Your task to perform on an android device: Look up the best gaming chair on Best Buy. Image 0: 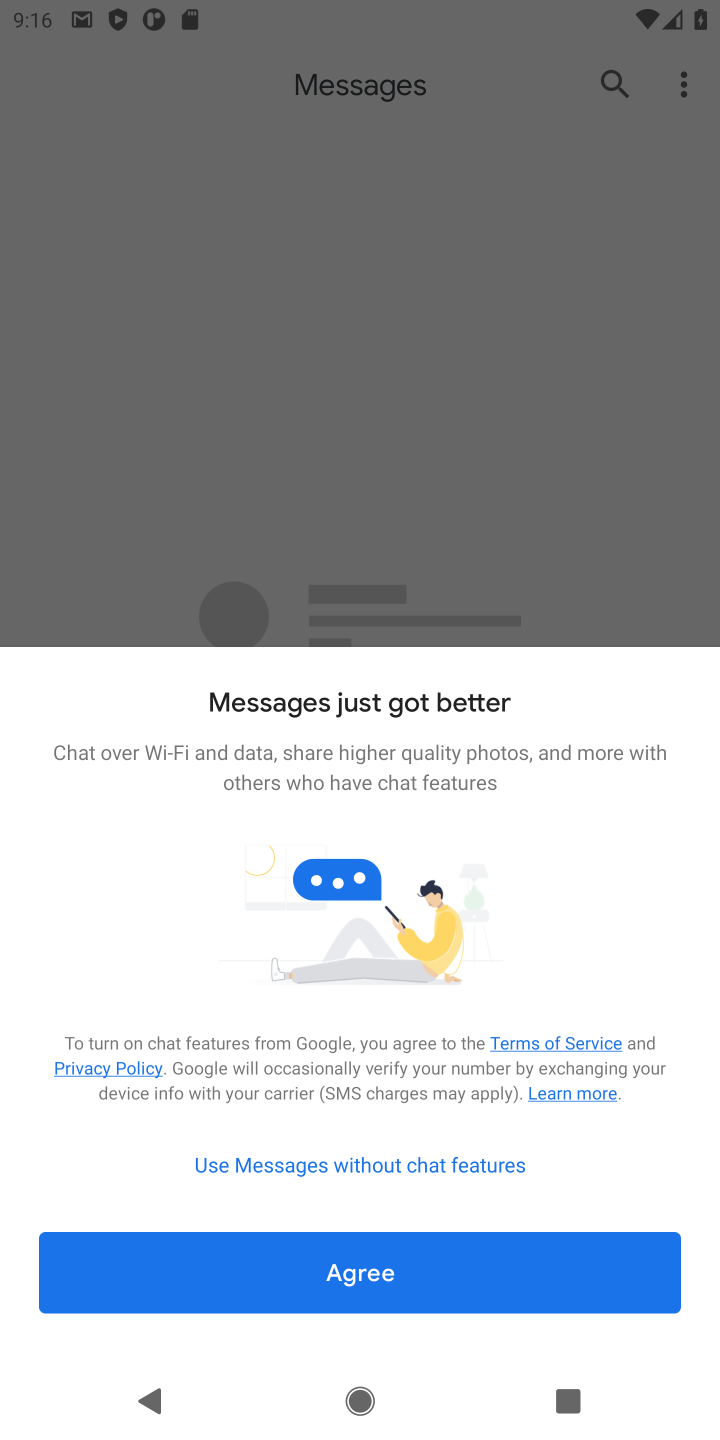
Step 0: press home button
Your task to perform on an android device: Look up the best gaming chair on Best Buy. Image 1: 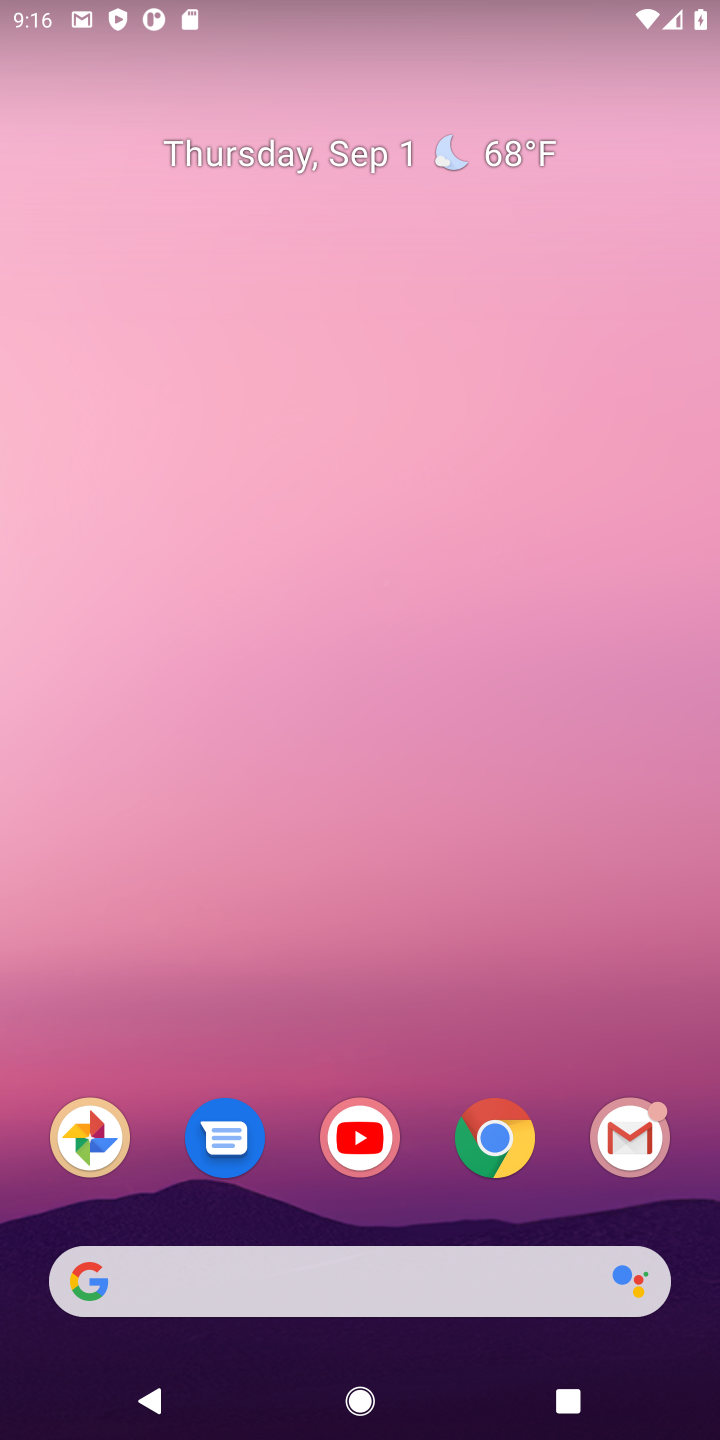
Step 1: click (495, 1146)
Your task to perform on an android device: Look up the best gaming chair on Best Buy. Image 2: 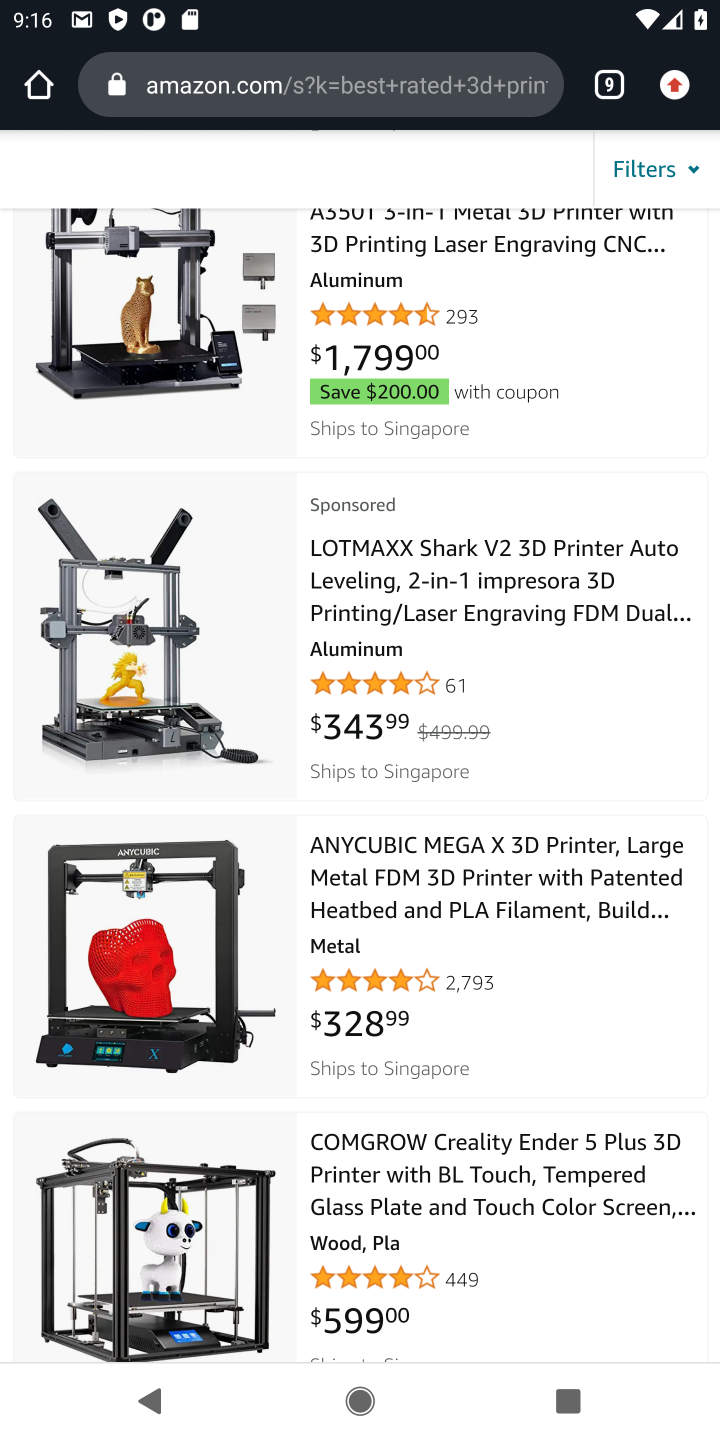
Step 2: click (613, 84)
Your task to perform on an android device: Look up the best gaming chair on Best Buy. Image 3: 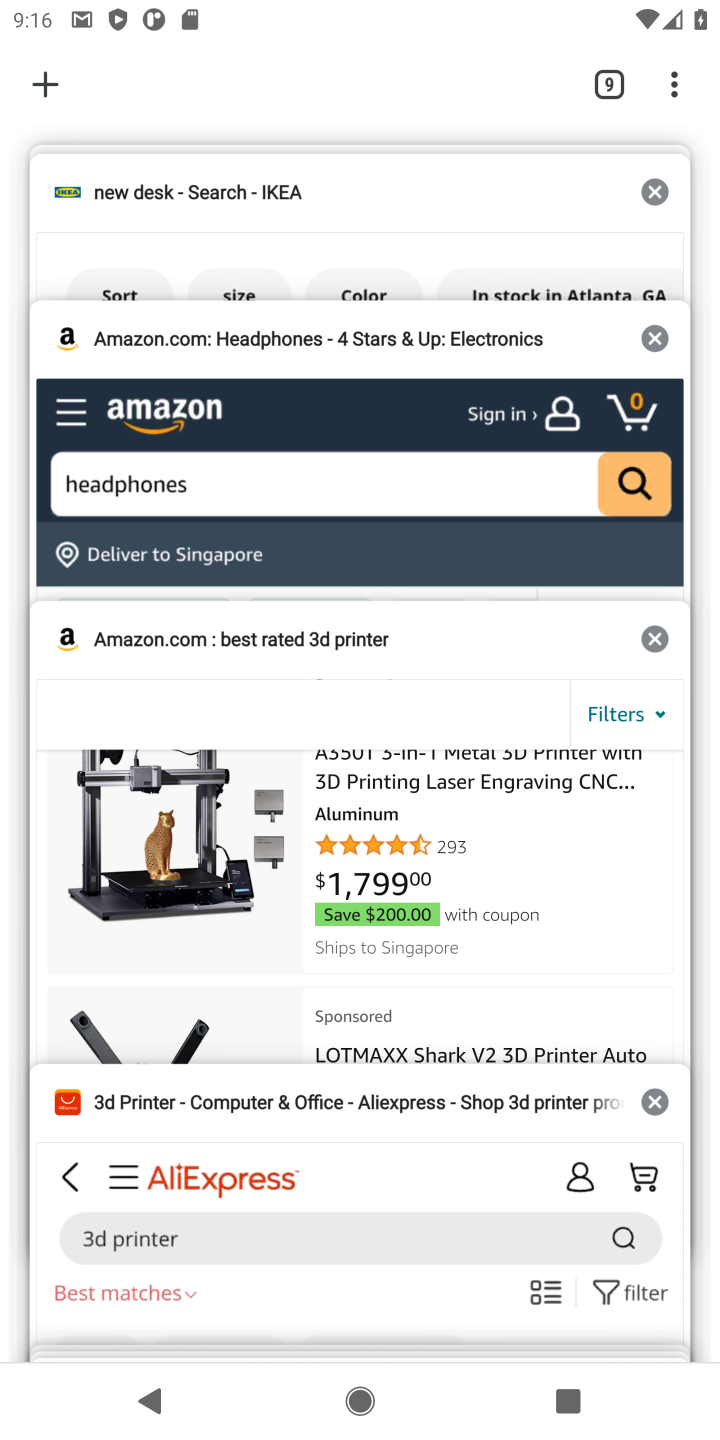
Step 3: drag from (223, 242) to (320, 715)
Your task to perform on an android device: Look up the best gaming chair on Best Buy. Image 4: 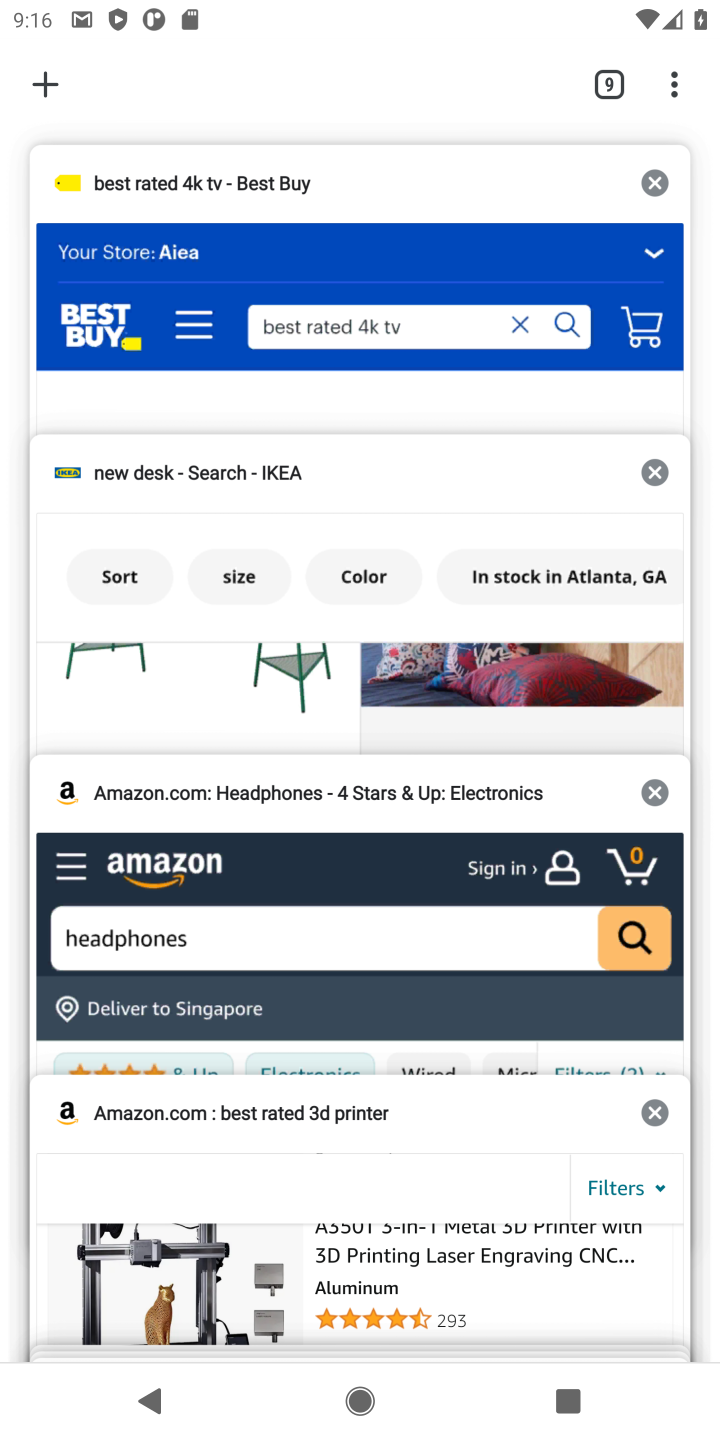
Step 4: click (344, 227)
Your task to perform on an android device: Look up the best gaming chair on Best Buy. Image 5: 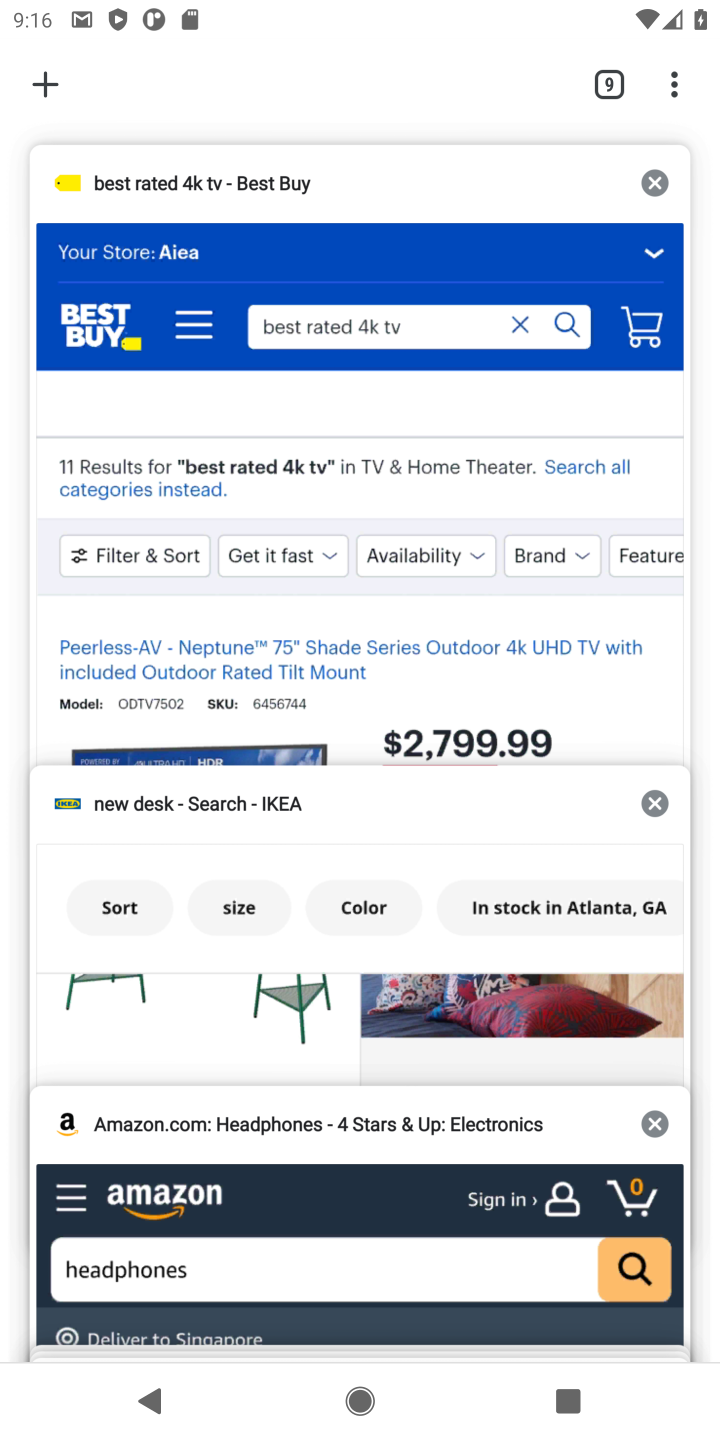
Step 5: click (344, 227)
Your task to perform on an android device: Look up the best gaming chair on Best Buy. Image 6: 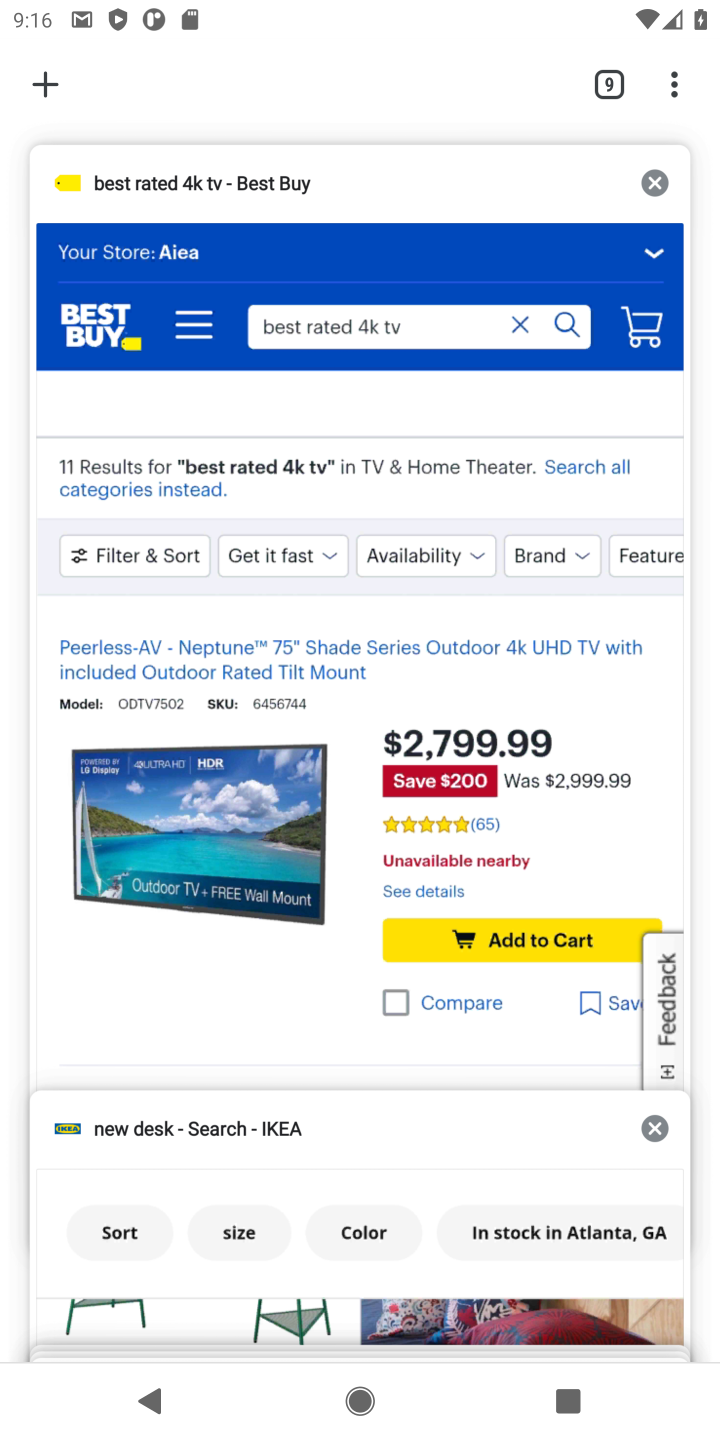
Step 6: click (441, 187)
Your task to perform on an android device: Look up the best gaming chair on Best Buy. Image 7: 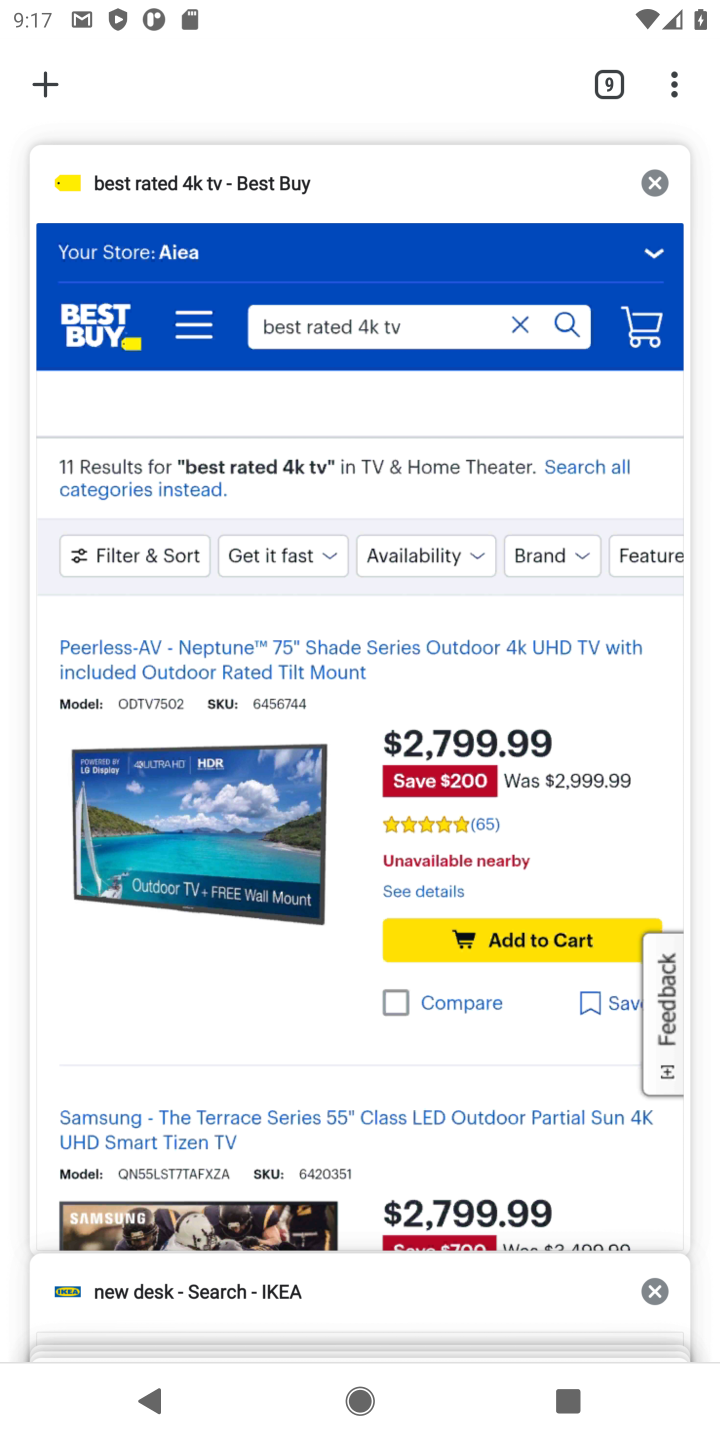
Step 7: click (288, 212)
Your task to perform on an android device: Look up the best gaming chair on Best Buy. Image 8: 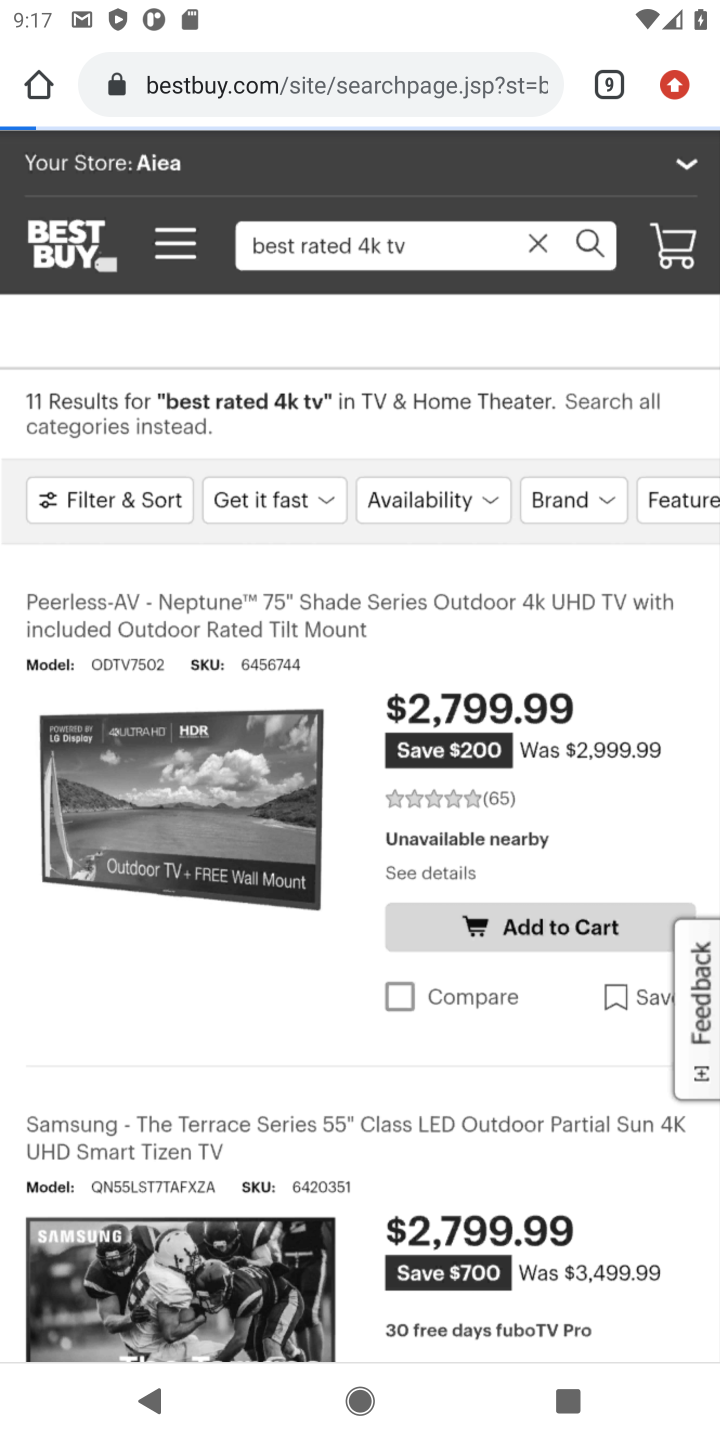
Step 8: click (475, 242)
Your task to perform on an android device: Look up the best gaming chair on Best Buy. Image 9: 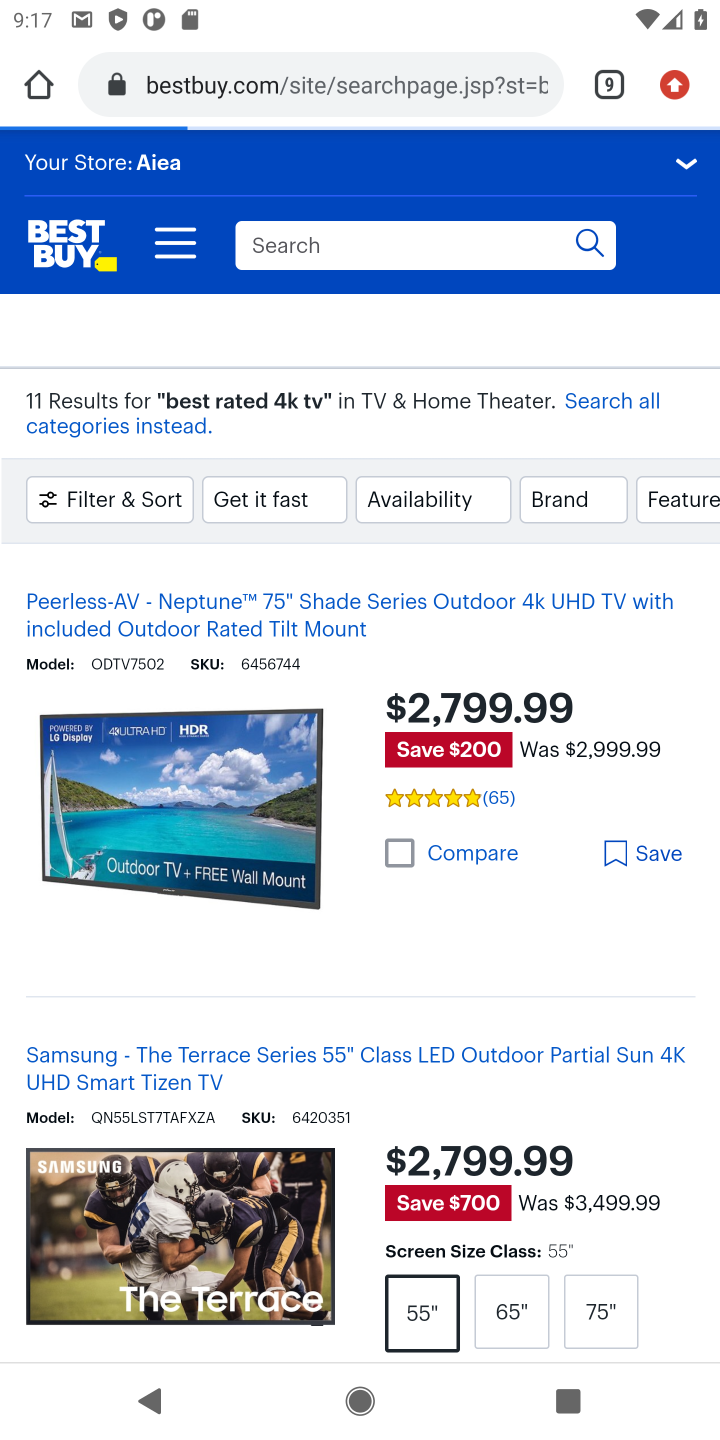
Step 9: click (523, 250)
Your task to perform on an android device: Look up the best gaming chair on Best Buy. Image 10: 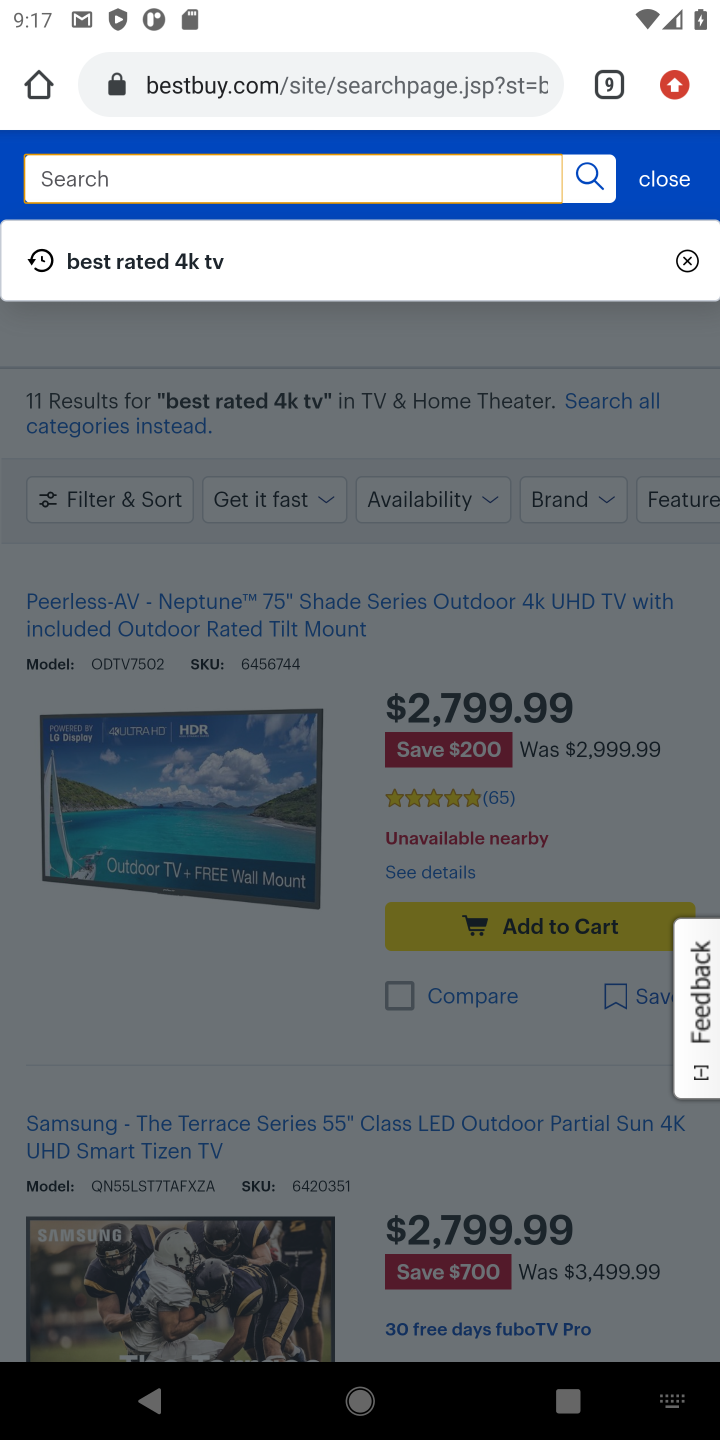
Step 10: type "best gaming chair"
Your task to perform on an android device: Look up the best gaming chair on Best Buy. Image 11: 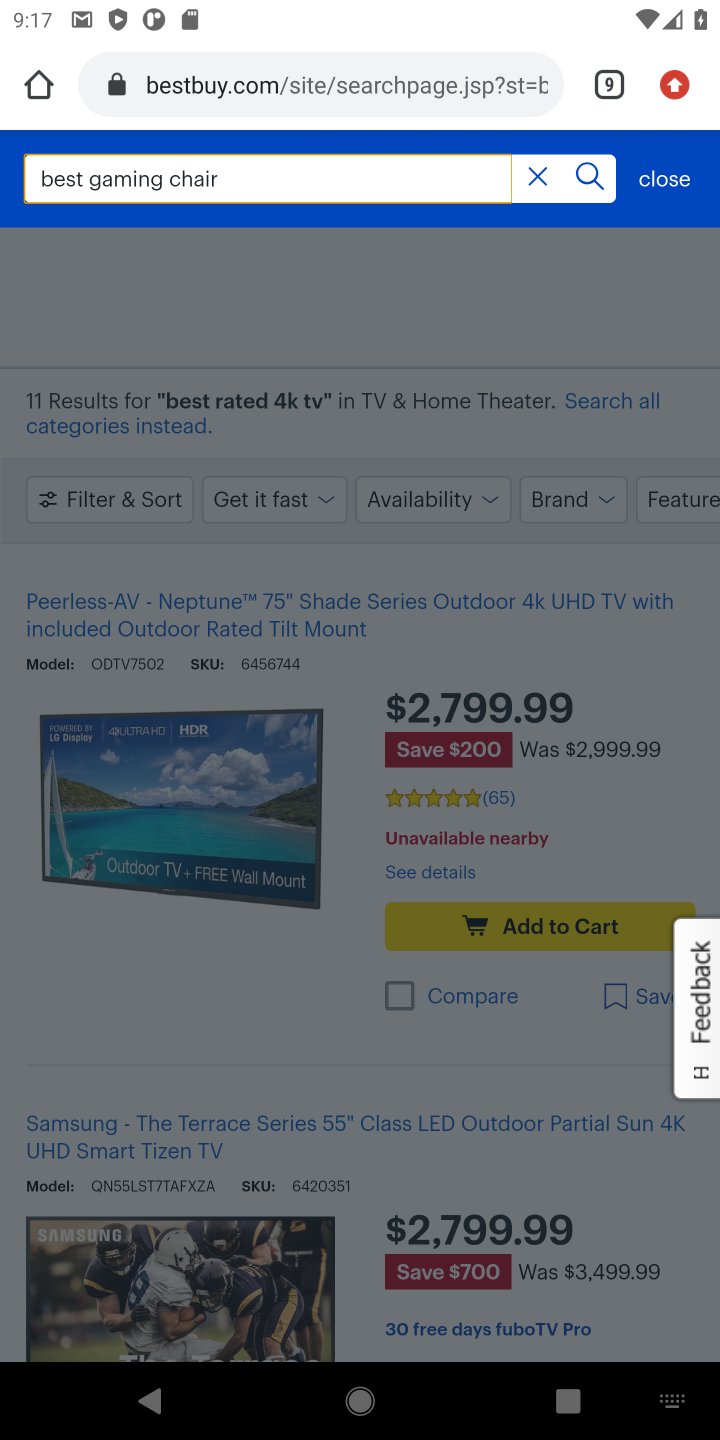
Step 11: click (596, 174)
Your task to perform on an android device: Look up the best gaming chair on Best Buy. Image 12: 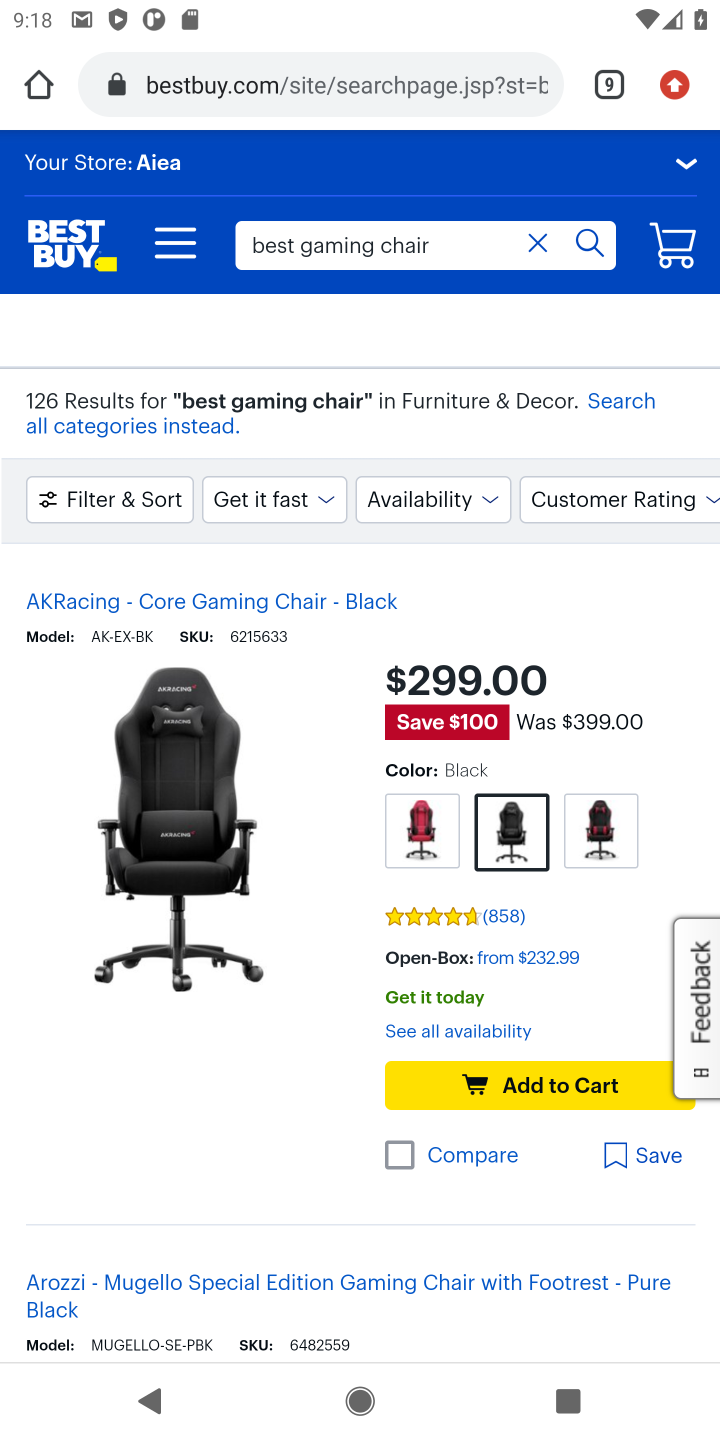
Step 12: task complete